Your task to perform on an android device: What's the weather going to be this weekend? Image 0: 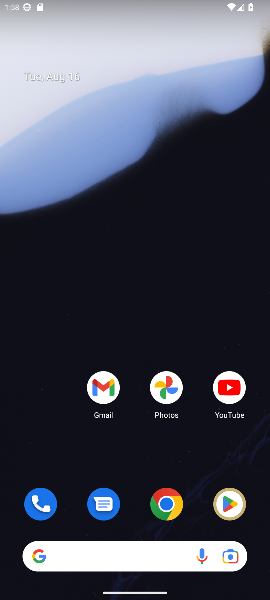
Step 0: drag from (142, 479) to (111, 211)
Your task to perform on an android device: What's the weather going to be this weekend? Image 1: 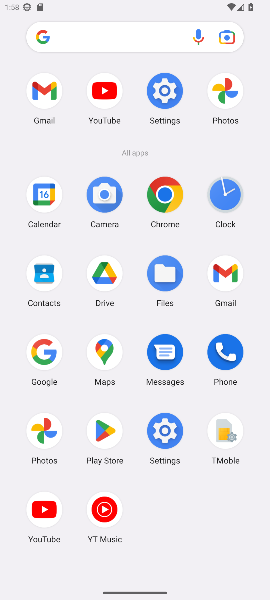
Step 1: click (33, 354)
Your task to perform on an android device: What's the weather going to be this weekend? Image 2: 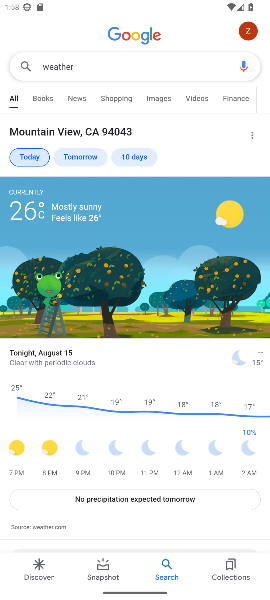
Step 2: click (127, 152)
Your task to perform on an android device: What's the weather going to be this weekend? Image 3: 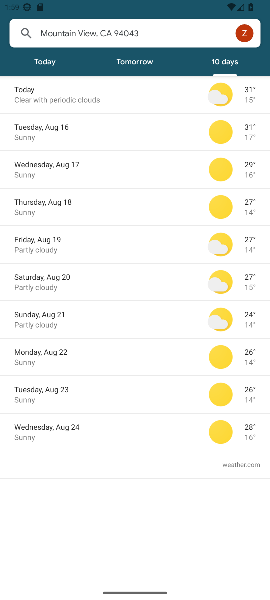
Step 3: click (47, 236)
Your task to perform on an android device: What's the weather going to be this weekend? Image 4: 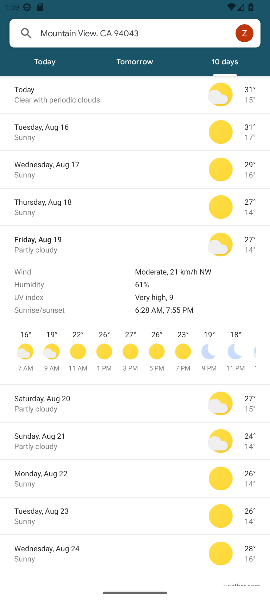
Step 4: task complete